Your task to perform on an android device: change text size in settings app Image 0: 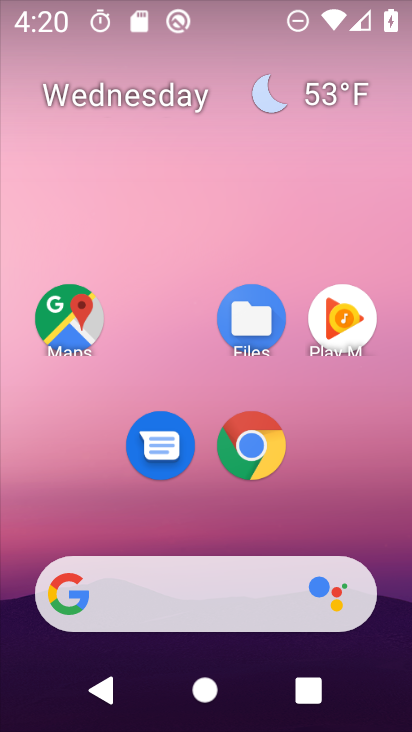
Step 0: drag from (307, 503) to (287, 98)
Your task to perform on an android device: change text size in settings app Image 1: 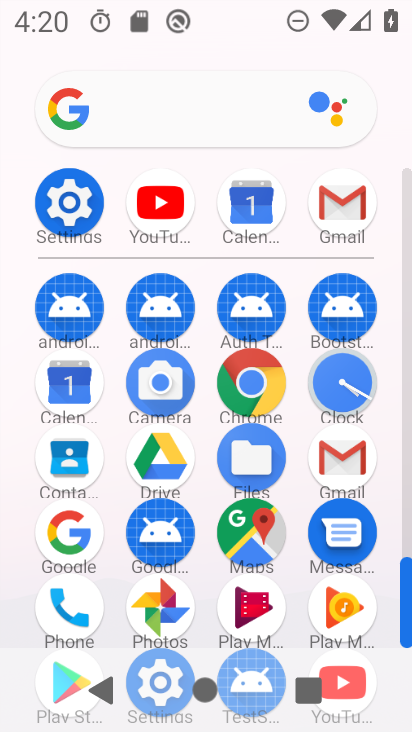
Step 1: click (66, 212)
Your task to perform on an android device: change text size in settings app Image 2: 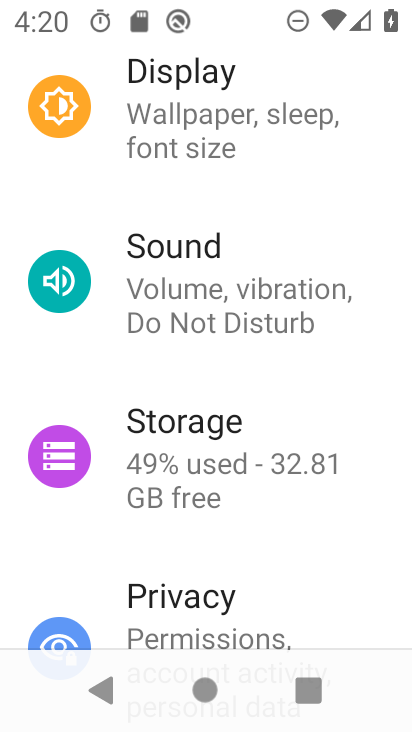
Step 2: click (190, 131)
Your task to perform on an android device: change text size in settings app Image 3: 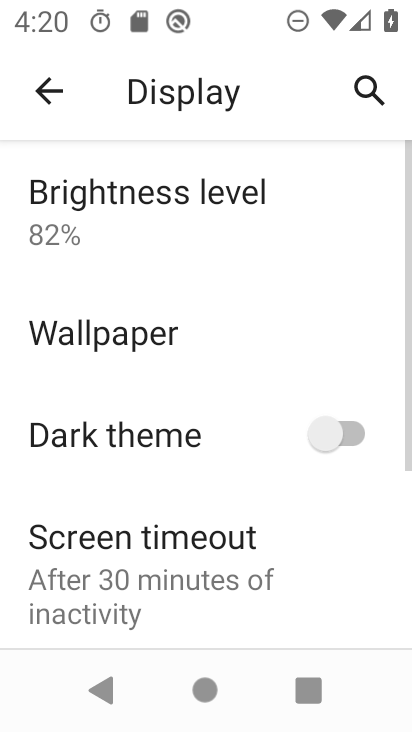
Step 3: drag from (189, 582) to (167, 165)
Your task to perform on an android device: change text size in settings app Image 4: 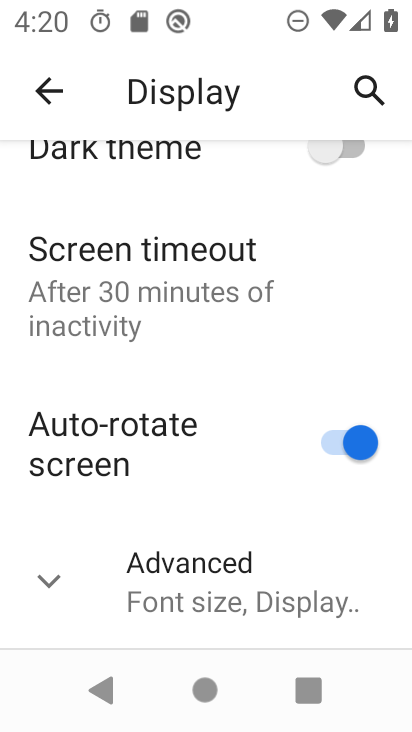
Step 4: click (166, 582)
Your task to perform on an android device: change text size in settings app Image 5: 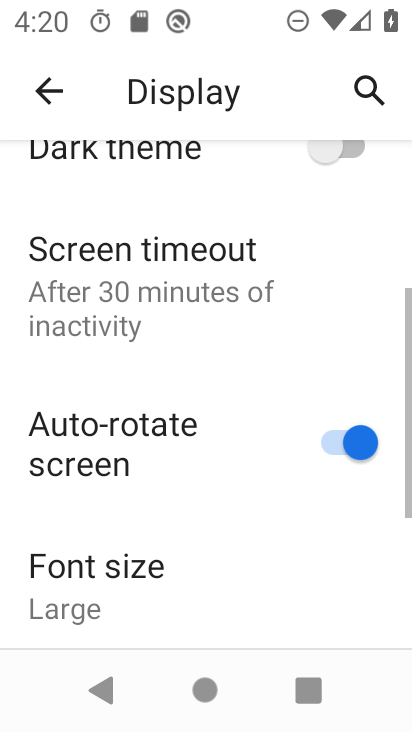
Step 5: click (166, 582)
Your task to perform on an android device: change text size in settings app Image 6: 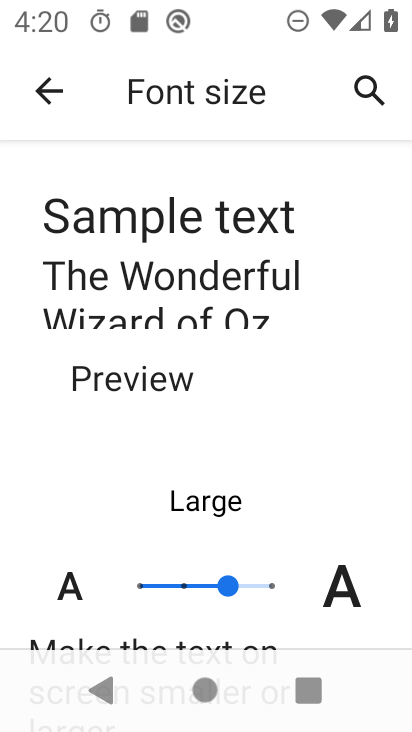
Step 6: click (173, 584)
Your task to perform on an android device: change text size in settings app Image 7: 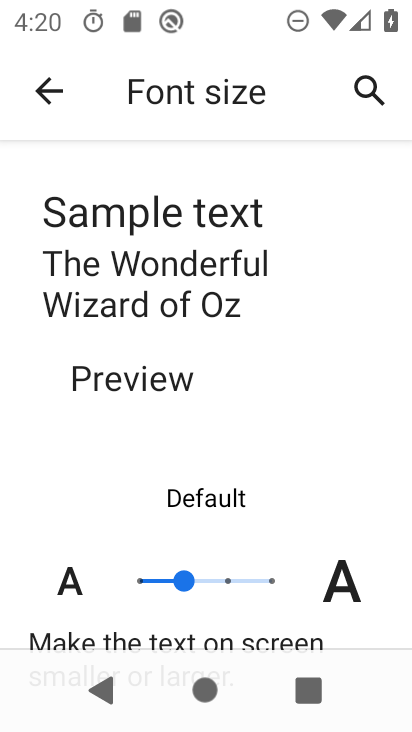
Step 7: task complete